Your task to perform on an android device: turn off javascript in the chrome app Image 0: 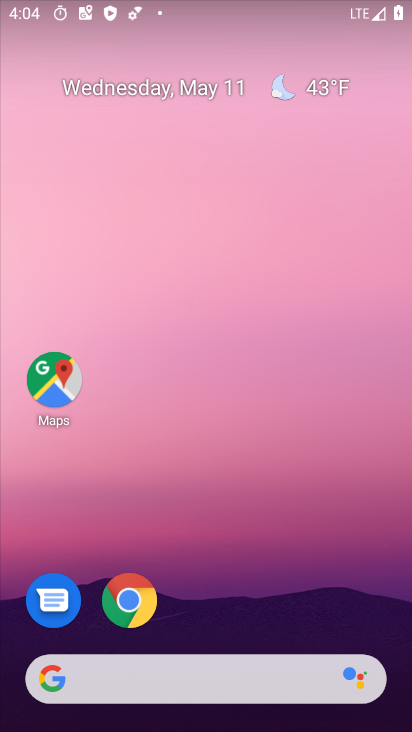
Step 0: click (144, 598)
Your task to perform on an android device: turn off javascript in the chrome app Image 1: 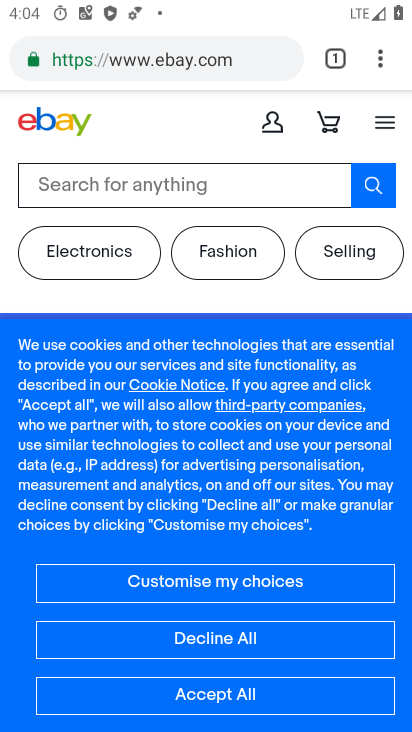
Step 1: click (381, 68)
Your task to perform on an android device: turn off javascript in the chrome app Image 2: 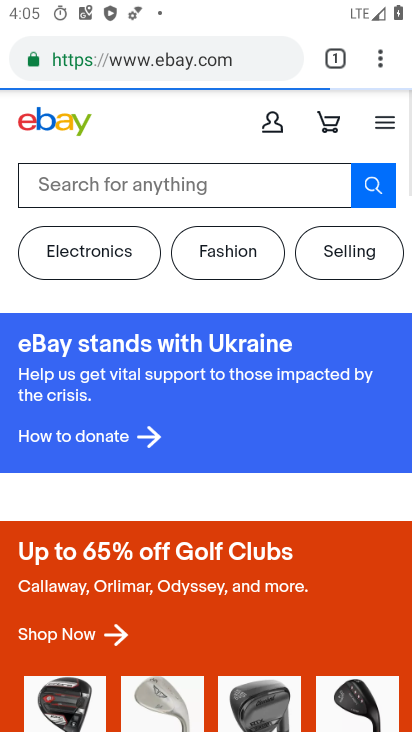
Step 2: click (381, 52)
Your task to perform on an android device: turn off javascript in the chrome app Image 3: 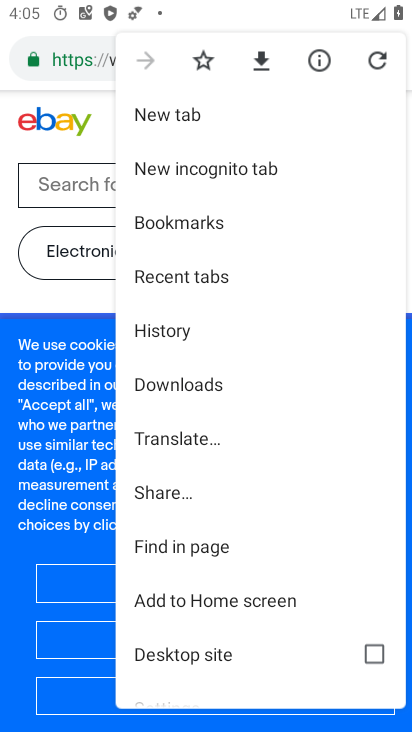
Step 3: drag from (206, 628) to (207, 280)
Your task to perform on an android device: turn off javascript in the chrome app Image 4: 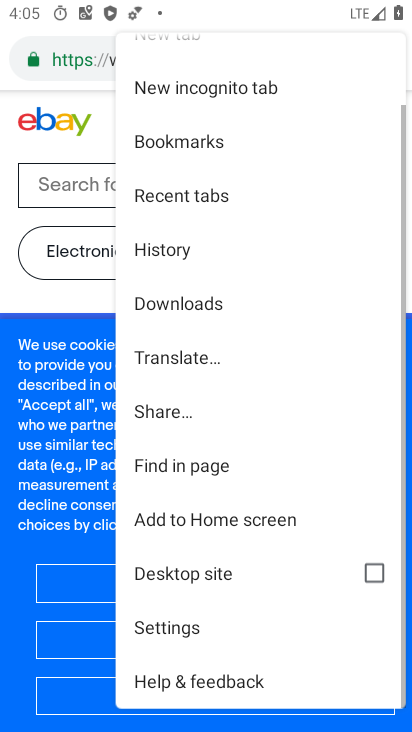
Step 4: click (163, 626)
Your task to perform on an android device: turn off javascript in the chrome app Image 5: 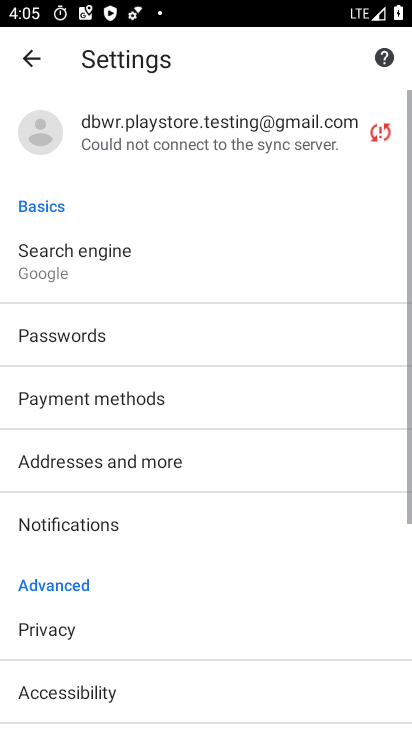
Step 5: drag from (163, 626) to (133, 294)
Your task to perform on an android device: turn off javascript in the chrome app Image 6: 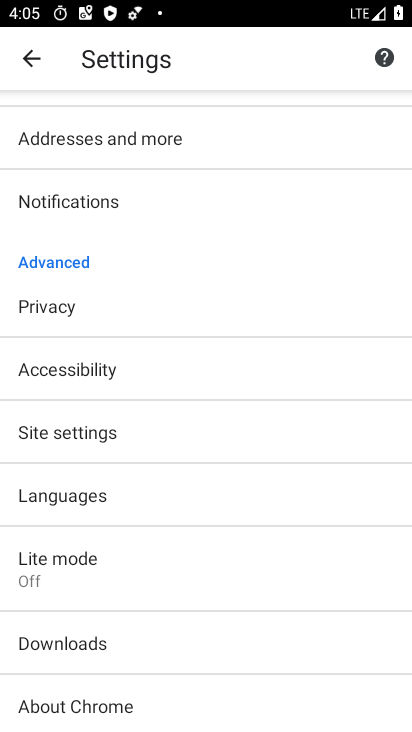
Step 6: click (64, 432)
Your task to perform on an android device: turn off javascript in the chrome app Image 7: 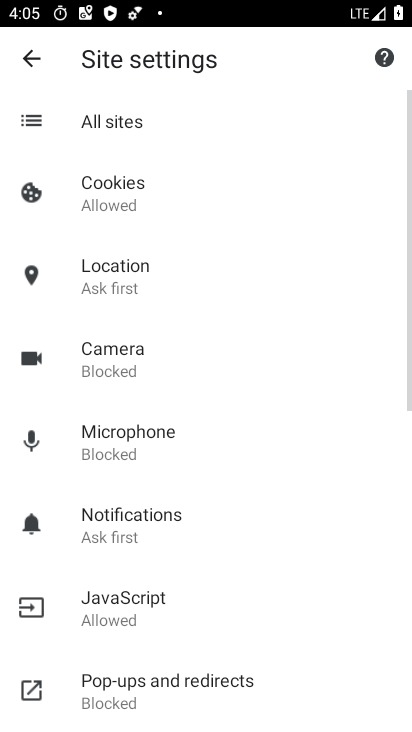
Step 7: click (162, 605)
Your task to perform on an android device: turn off javascript in the chrome app Image 8: 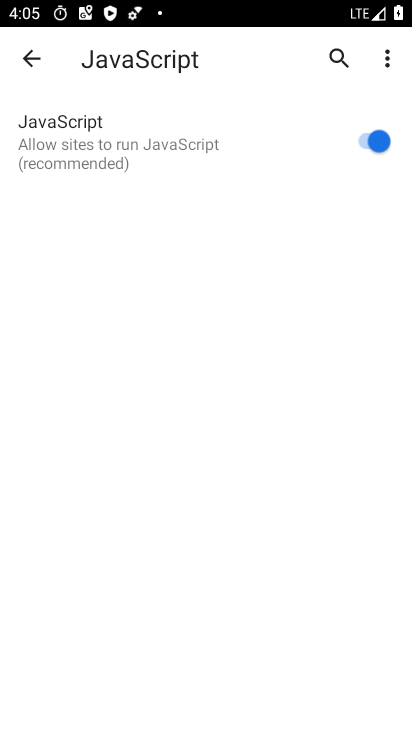
Step 8: click (381, 141)
Your task to perform on an android device: turn off javascript in the chrome app Image 9: 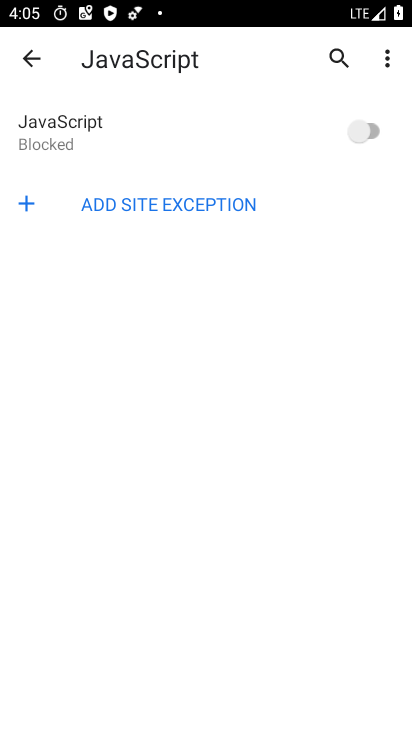
Step 9: task complete